Your task to perform on an android device: open chrome and create a bookmark for the current page Image 0: 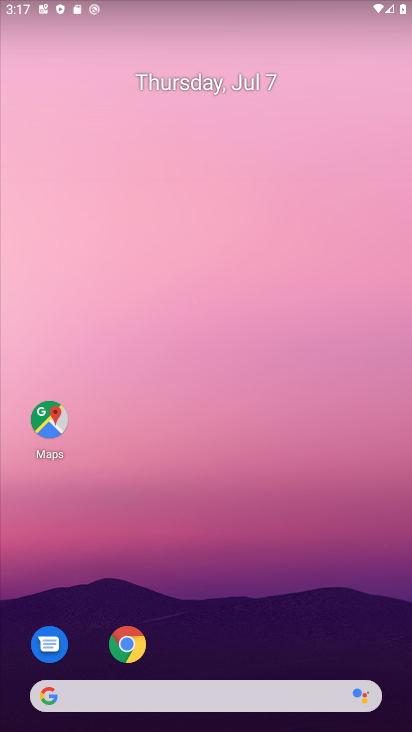
Step 0: drag from (233, 676) to (209, 84)
Your task to perform on an android device: open chrome and create a bookmark for the current page Image 1: 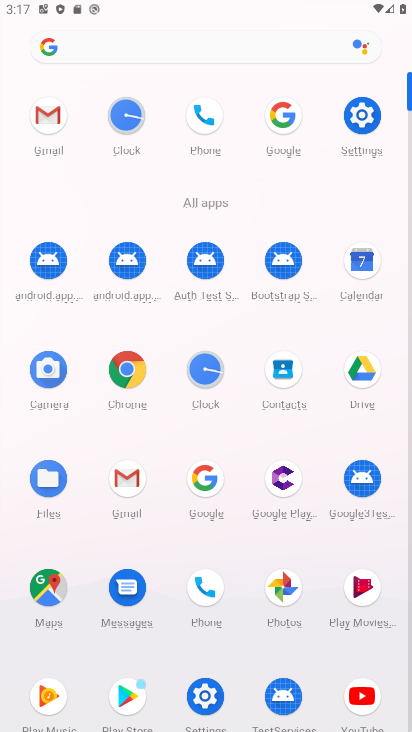
Step 1: click (131, 380)
Your task to perform on an android device: open chrome and create a bookmark for the current page Image 2: 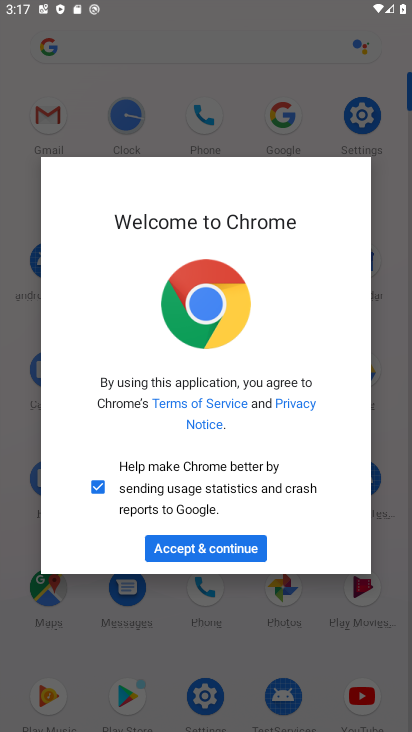
Step 2: click (221, 552)
Your task to perform on an android device: open chrome and create a bookmark for the current page Image 3: 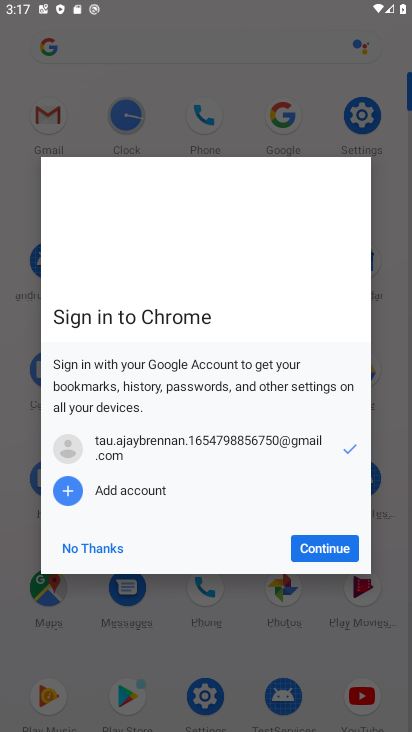
Step 3: click (313, 547)
Your task to perform on an android device: open chrome and create a bookmark for the current page Image 4: 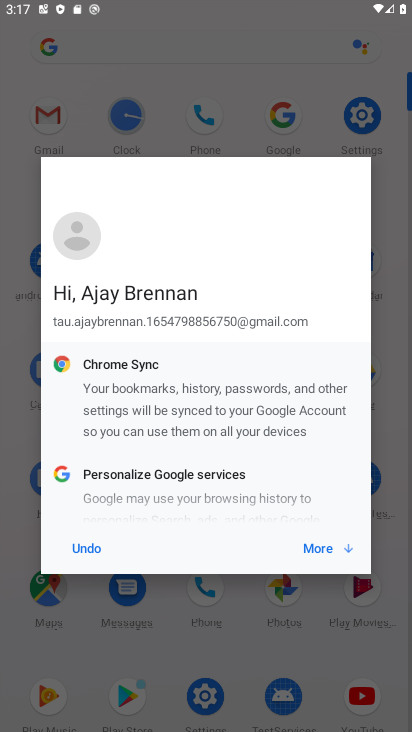
Step 4: click (312, 546)
Your task to perform on an android device: open chrome and create a bookmark for the current page Image 5: 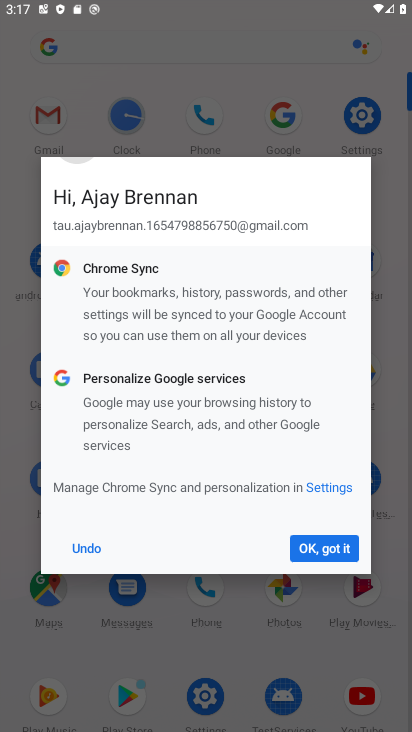
Step 5: click (312, 546)
Your task to perform on an android device: open chrome and create a bookmark for the current page Image 6: 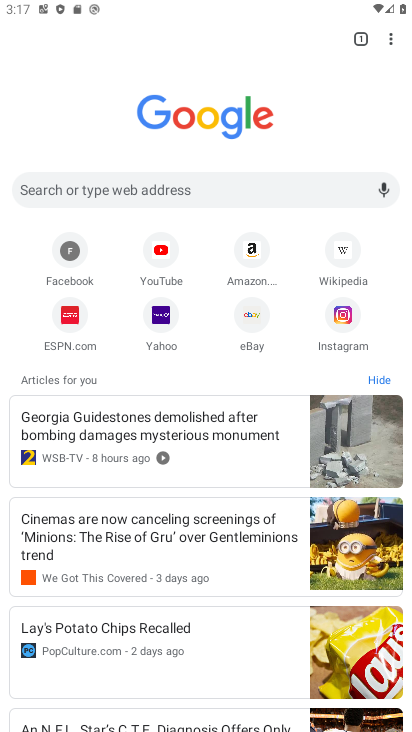
Step 6: click (386, 44)
Your task to perform on an android device: open chrome and create a bookmark for the current page Image 7: 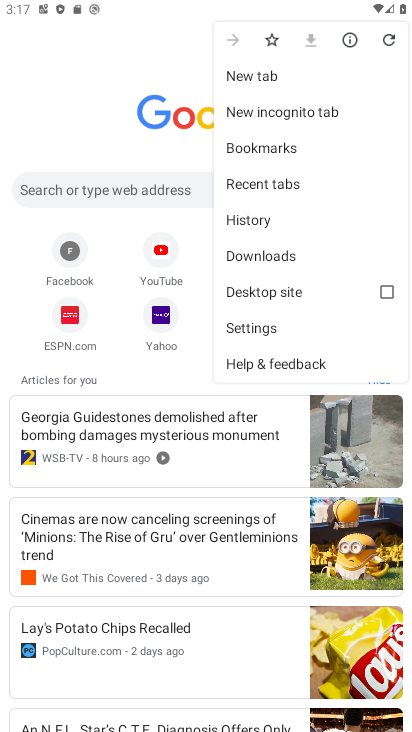
Step 7: click (264, 37)
Your task to perform on an android device: open chrome and create a bookmark for the current page Image 8: 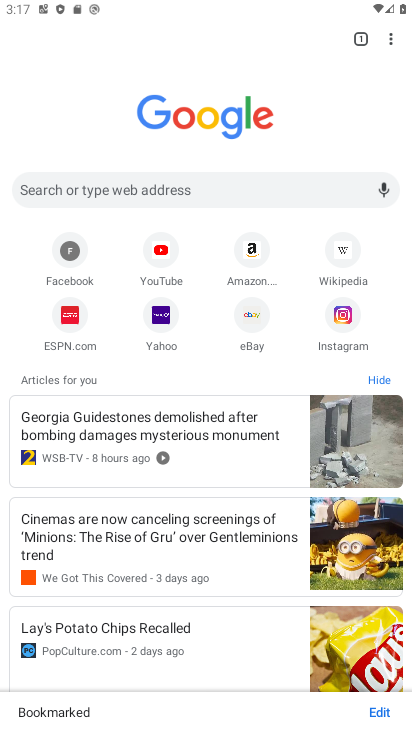
Step 8: task complete